Your task to perform on an android device: toggle translation in the chrome app Image 0: 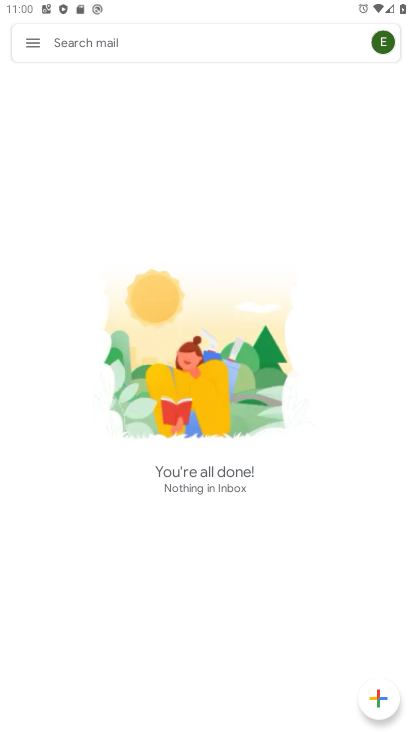
Step 0: press home button
Your task to perform on an android device: toggle translation in the chrome app Image 1: 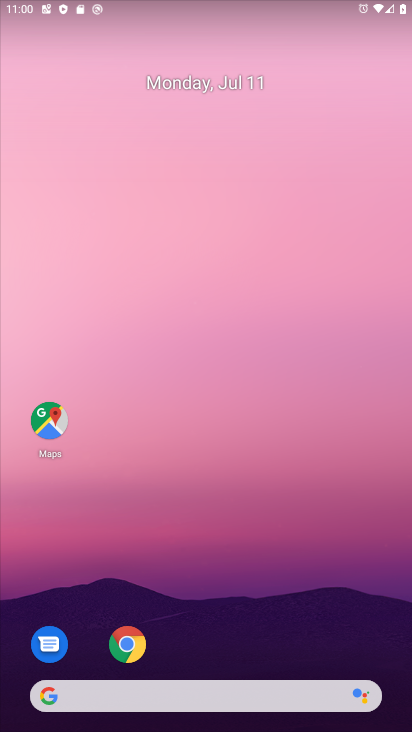
Step 1: click (128, 640)
Your task to perform on an android device: toggle translation in the chrome app Image 2: 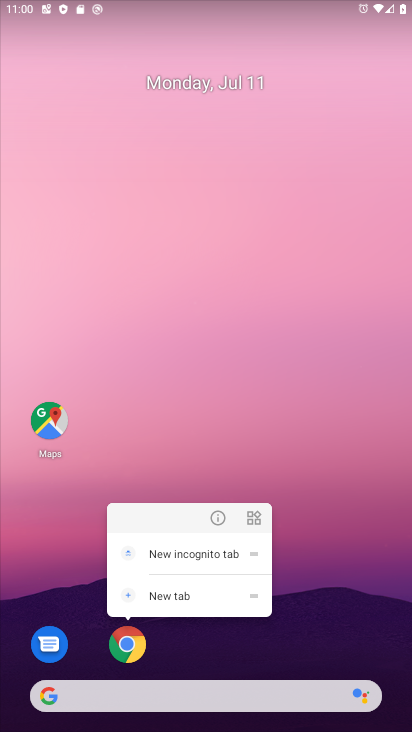
Step 2: click (124, 641)
Your task to perform on an android device: toggle translation in the chrome app Image 3: 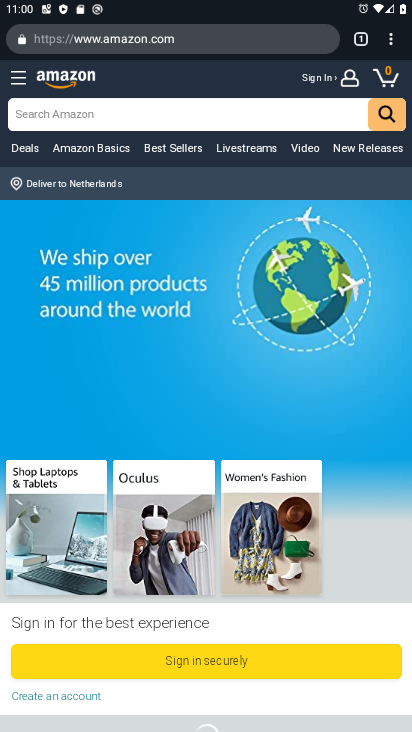
Step 3: click (388, 41)
Your task to perform on an android device: toggle translation in the chrome app Image 4: 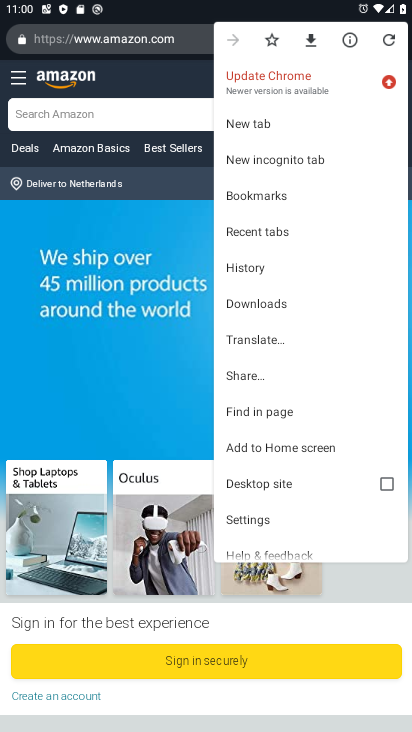
Step 4: click (274, 513)
Your task to perform on an android device: toggle translation in the chrome app Image 5: 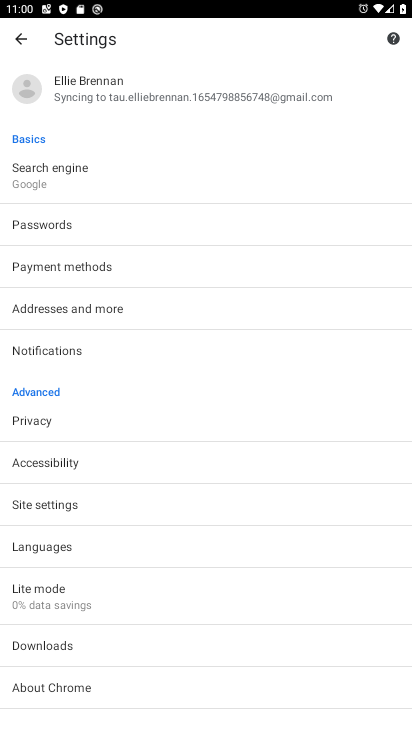
Step 5: click (89, 550)
Your task to perform on an android device: toggle translation in the chrome app Image 6: 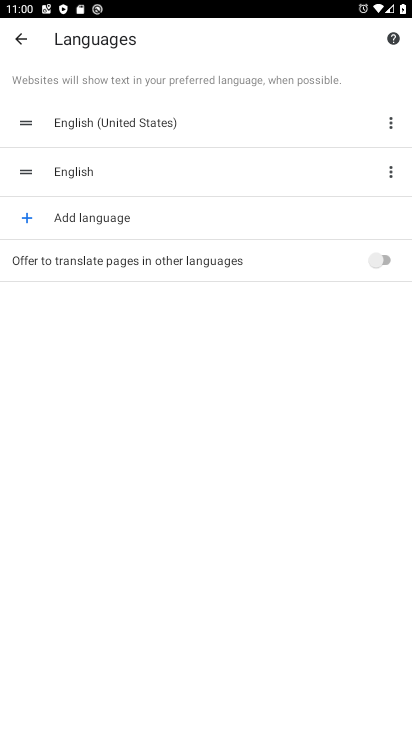
Step 6: click (383, 261)
Your task to perform on an android device: toggle translation in the chrome app Image 7: 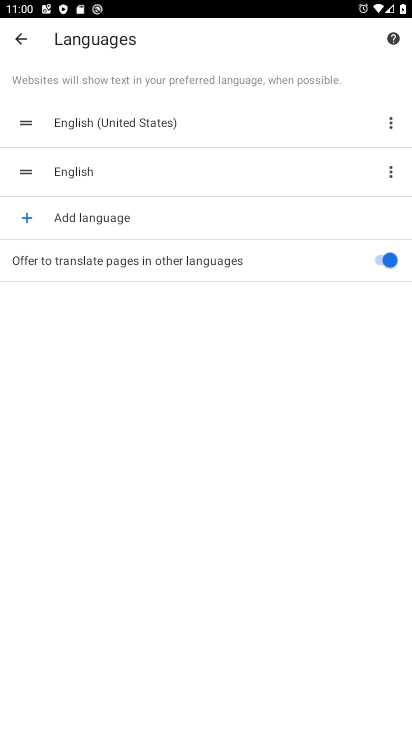
Step 7: task complete